Your task to perform on an android device: toggle pop-ups in chrome Image 0: 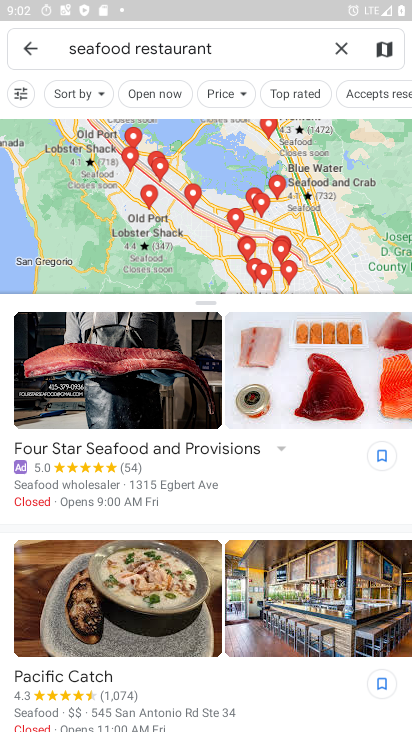
Step 0: press home button
Your task to perform on an android device: toggle pop-ups in chrome Image 1: 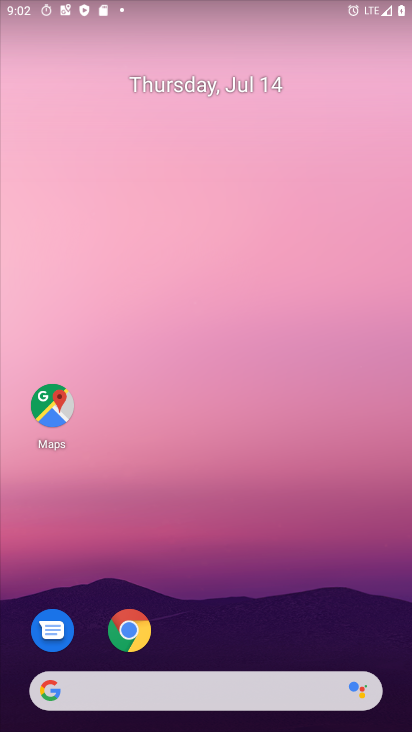
Step 1: click (123, 625)
Your task to perform on an android device: toggle pop-ups in chrome Image 2: 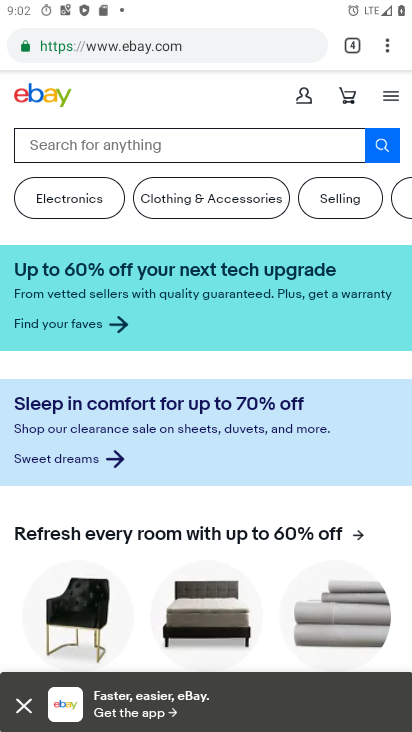
Step 2: click (388, 47)
Your task to perform on an android device: toggle pop-ups in chrome Image 3: 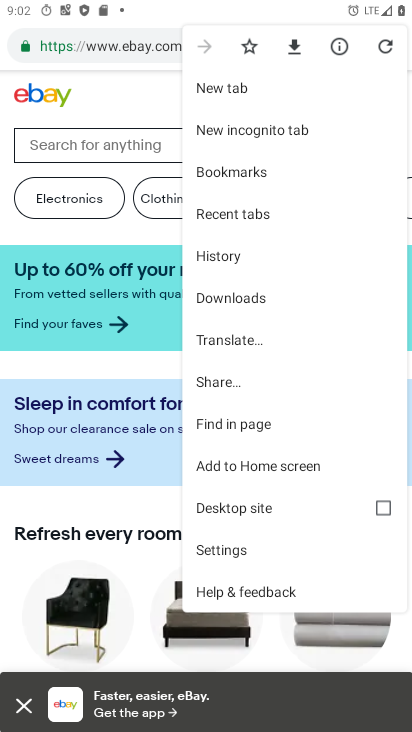
Step 3: click (223, 552)
Your task to perform on an android device: toggle pop-ups in chrome Image 4: 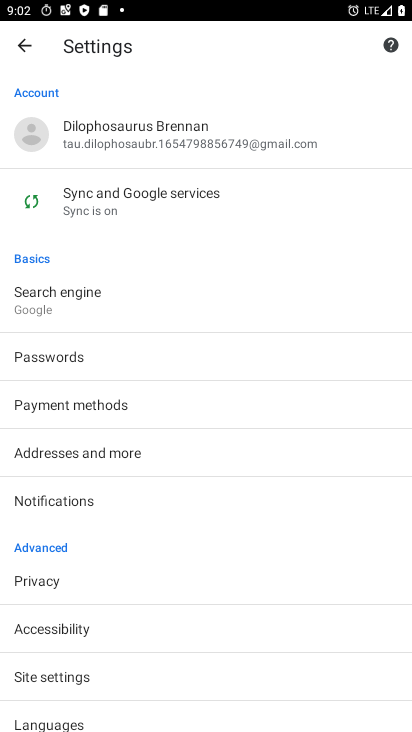
Step 4: click (50, 679)
Your task to perform on an android device: toggle pop-ups in chrome Image 5: 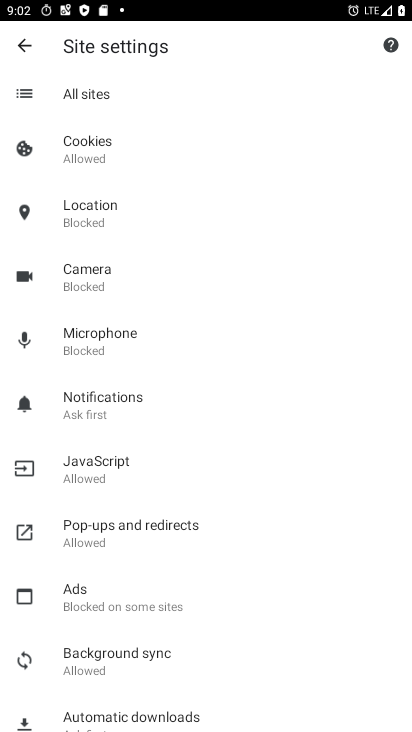
Step 5: click (80, 534)
Your task to perform on an android device: toggle pop-ups in chrome Image 6: 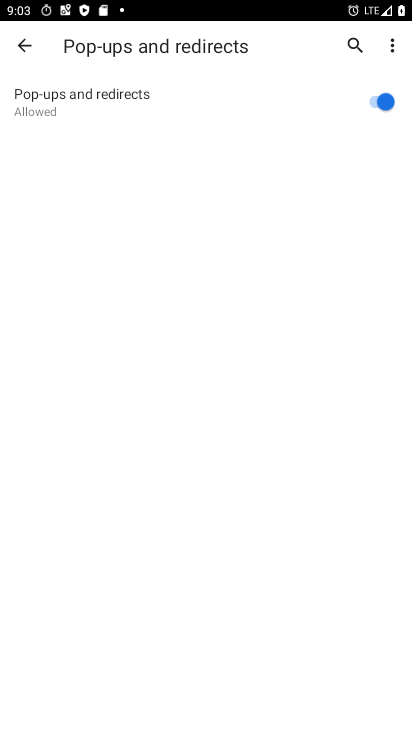
Step 6: click (367, 103)
Your task to perform on an android device: toggle pop-ups in chrome Image 7: 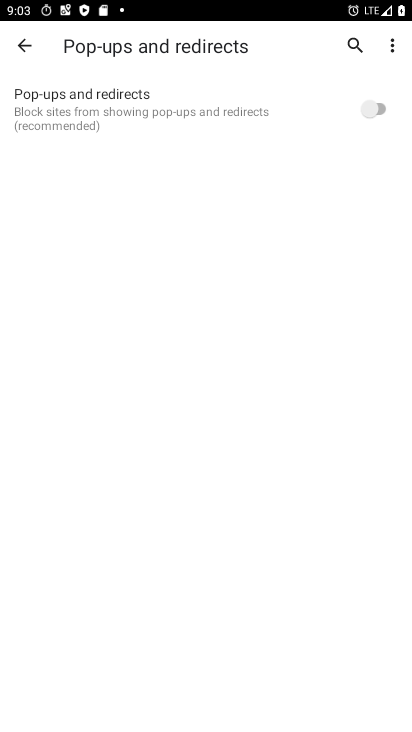
Step 7: task complete